Your task to perform on an android device: Search for pizza restaurants on Maps Image 0: 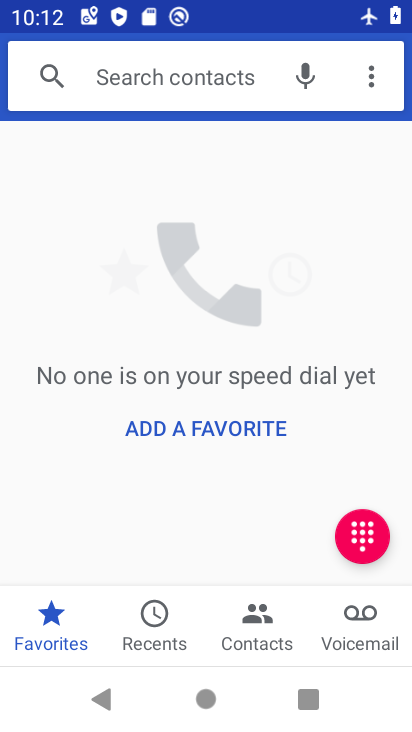
Step 0: press home button
Your task to perform on an android device: Search for pizza restaurants on Maps Image 1: 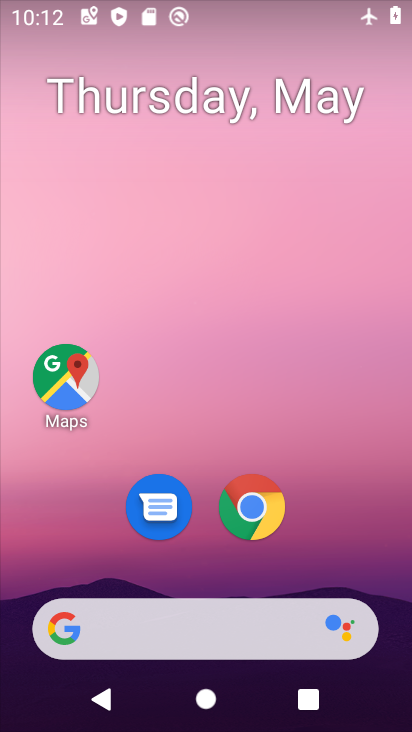
Step 1: drag from (276, 598) to (321, 165)
Your task to perform on an android device: Search for pizza restaurants on Maps Image 2: 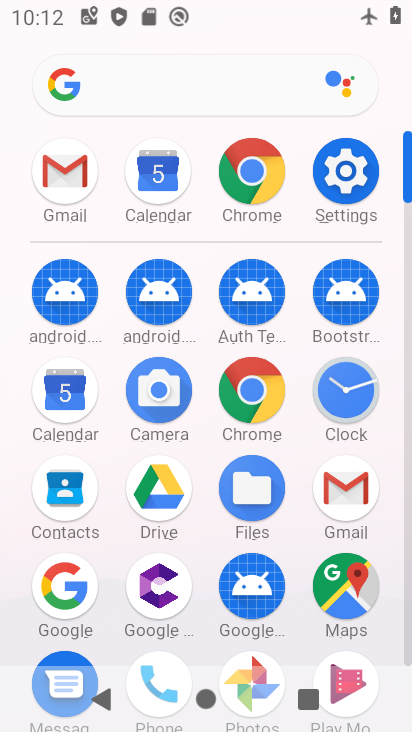
Step 2: click (345, 589)
Your task to perform on an android device: Search for pizza restaurants on Maps Image 3: 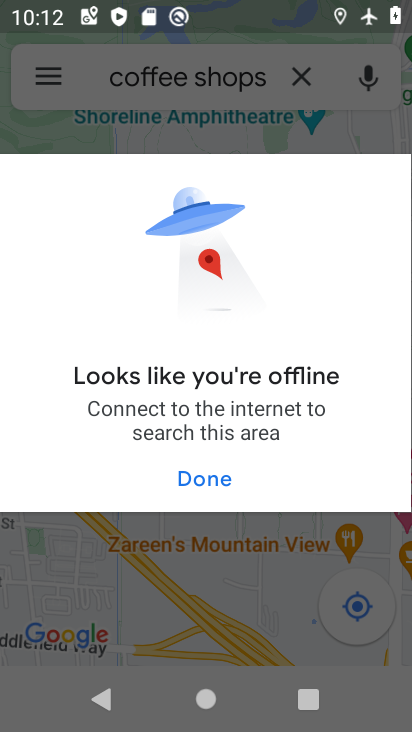
Step 3: click (198, 498)
Your task to perform on an android device: Search for pizza restaurants on Maps Image 4: 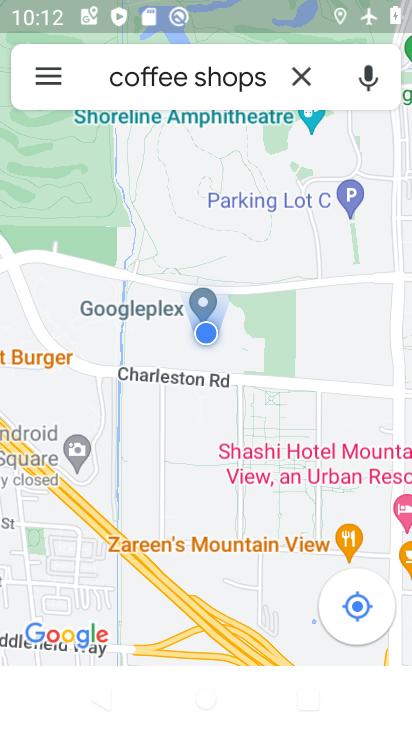
Step 4: click (302, 72)
Your task to perform on an android device: Search for pizza restaurants on Maps Image 5: 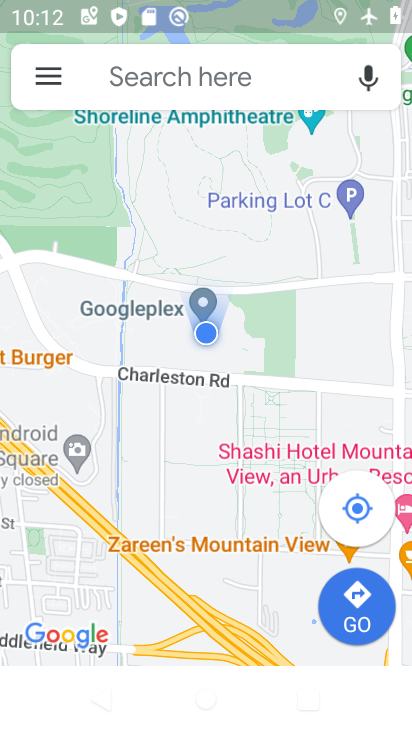
Step 5: click (270, 75)
Your task to perform on an android device: Search for pizza restaurants on Maps Image 6: 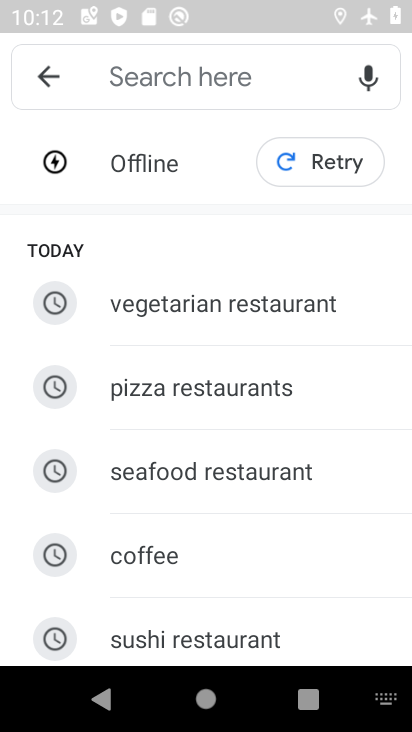
Step 6: type "pizza "
Your task to perform on an android device: Search for pizza restaurants on Maps Image 7: 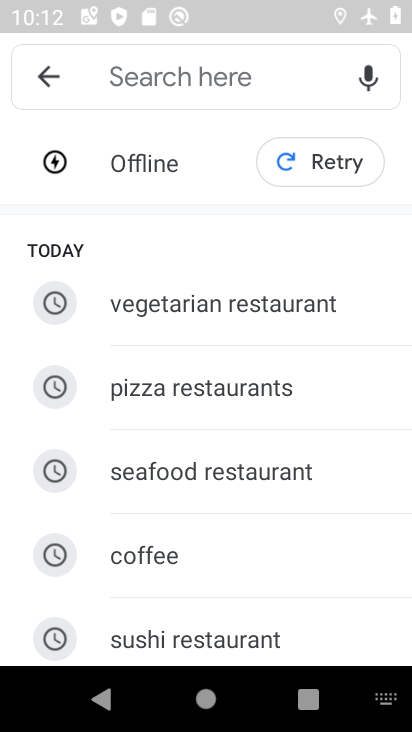
Step 7: click (288, 123)
Your task to perform on an android device: Search for pizza restaurants on Maps Image 8: 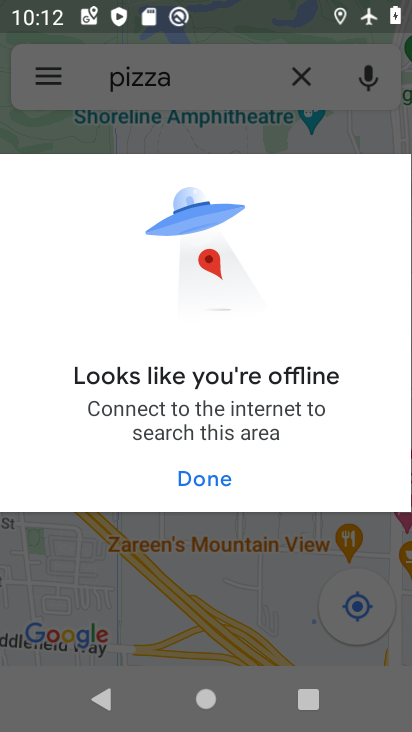
Step 8: task complete